Your task to perform on an android device: remove spam from my inbox in the gmail app Image 0: 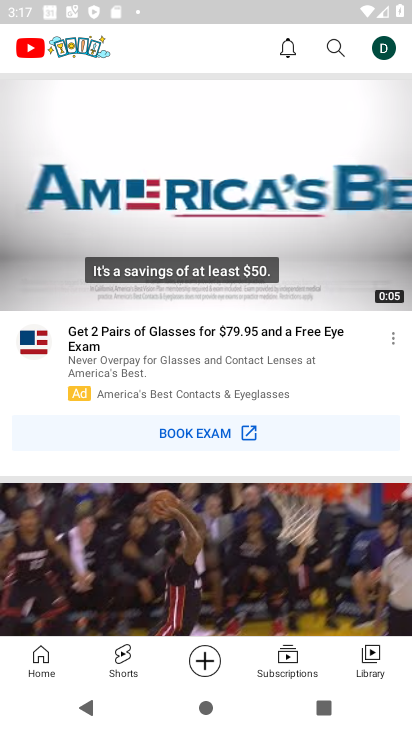
Step 0: press home button
Your task to perform on an android device: remove spam from my inbox in the gmail app Image 1: 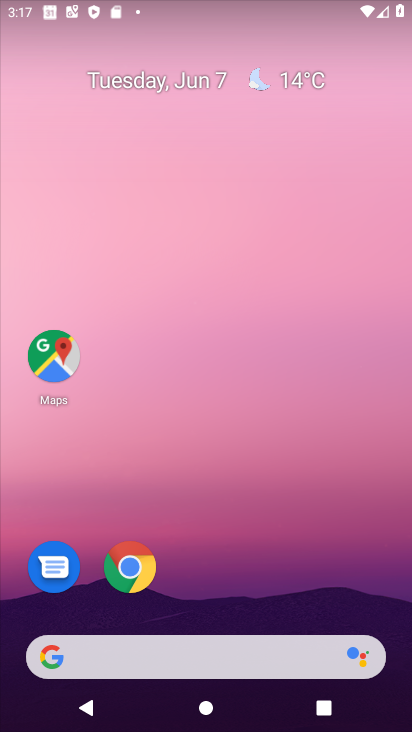
Step 1: drag from (212, 585) to (207, 193)
Your task to perform on an android device: remove spam from my inbox in the gmail app Image 2: 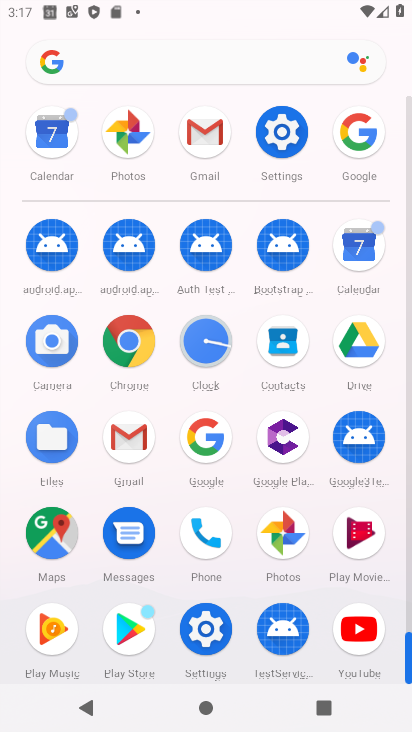
Step 2: click (123, 434)
Your task to perform on an android device: remove spam from my inbox in the gmail app Image 3: 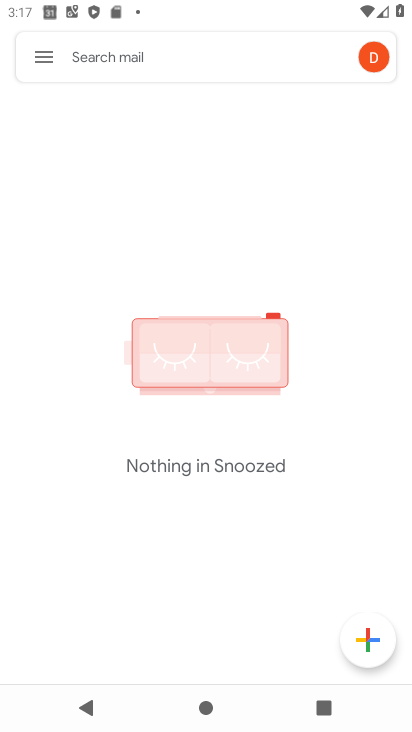
Step 3: click (49, 42)
Your task to perform on an android device: remove spam from my inbox in the gmail app Image 4: 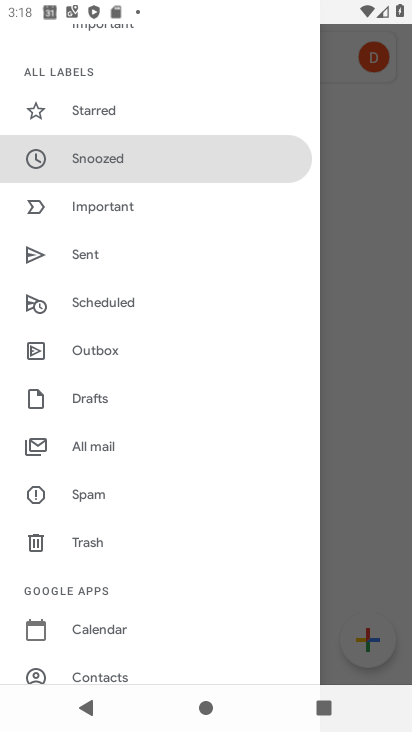
Step 4: click (120, 487)
Your task to perform on an android device: remove spam from my inbox in the gmail app Image 5: 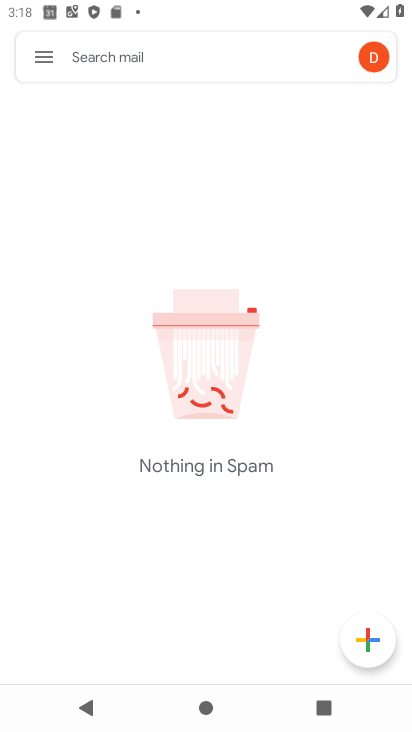
Step 5: task complete